Your task to perform on an android device: turn off notifications settings in the gmail app Image 0: 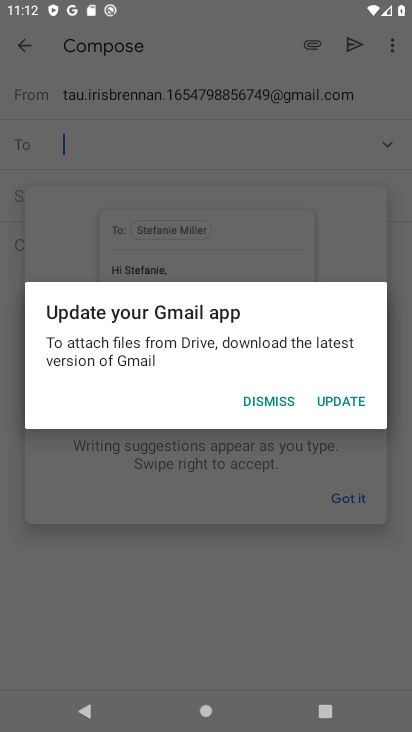
Step 0: press home button
Your task to perform on an android device: turn off notifications settings in the gmail app Image 1: 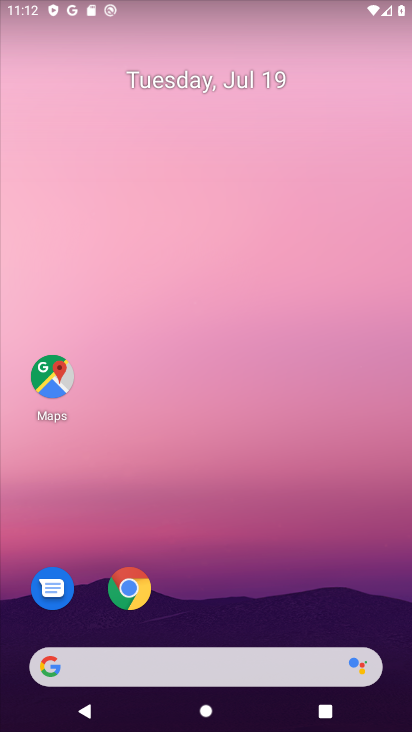
Step 1: drag from (264, 660) to (286, 121)
Your task to perform on an android device: turn off notifications settings in the gmail app Image 2: 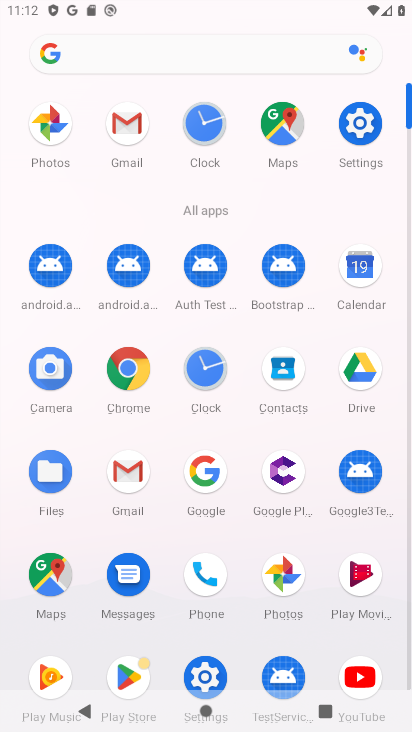
Step 2: click (131, 470)
Your task to perform on an android device: turn off notifications settings in the gmail app Image 3: 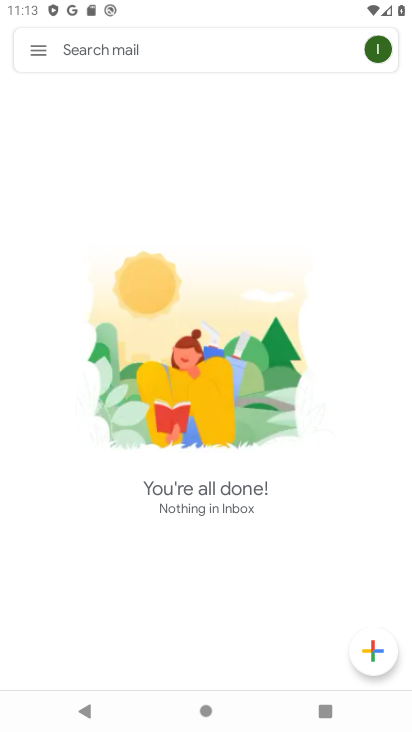
Step 3: click (40, 49)
Your task to perform on an android device: turn off notifications settings in the gmail app Image 4: 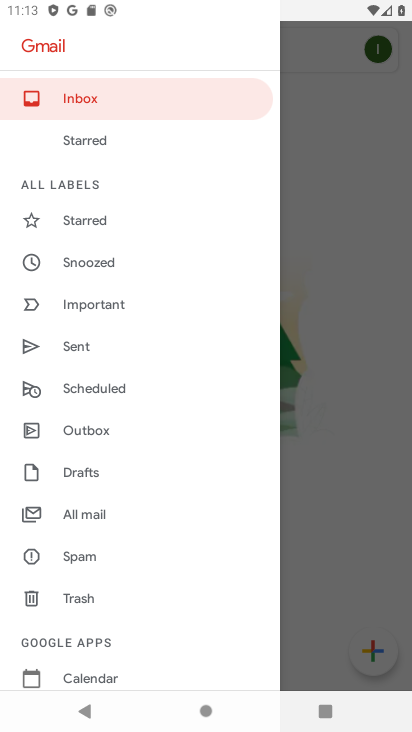
Step 4: drag from (119, 655) to (121, 464)
Your task to perform on an android device: turn off notifications settings in the gmail app Image 5: 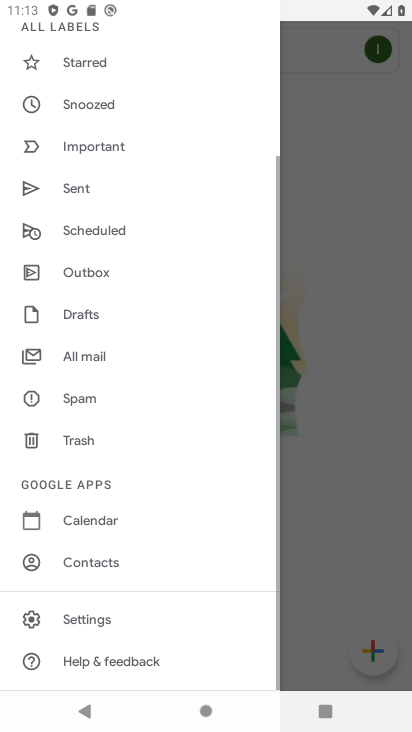
Step 5: click (91, 618)
Your task to perform on an android device: turn off notifications settings in the gmail app Image 6: 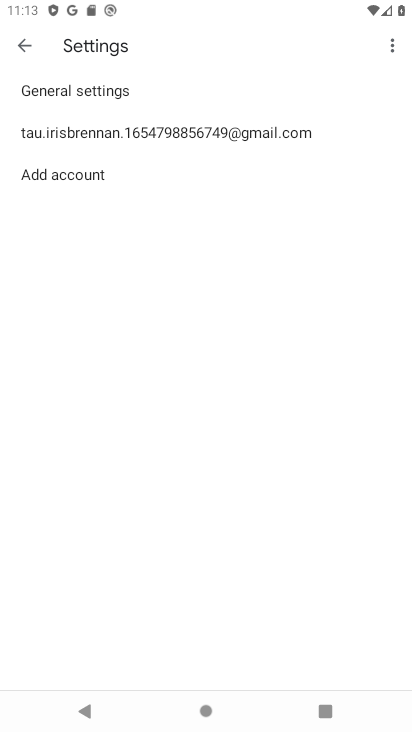
Step 6: click (152, 127)
Your task to perform on an android device: turn off notifications settings in the gmail app Image 7: 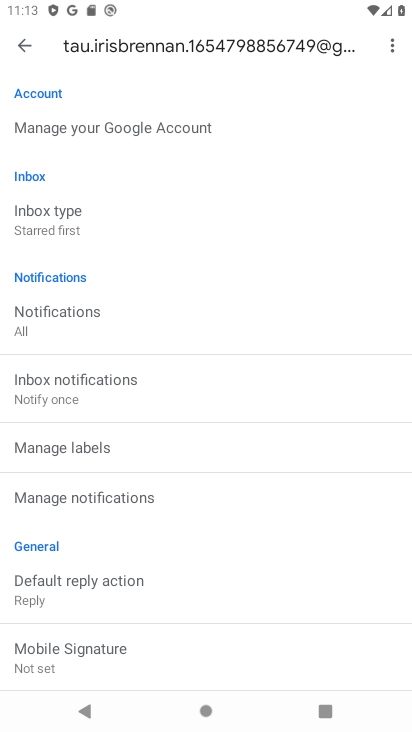
Step 7: drag from (158, 661) to (158, 402)
Your task to perform on an android device: turn off notifications settings in the gmail app Image 8: 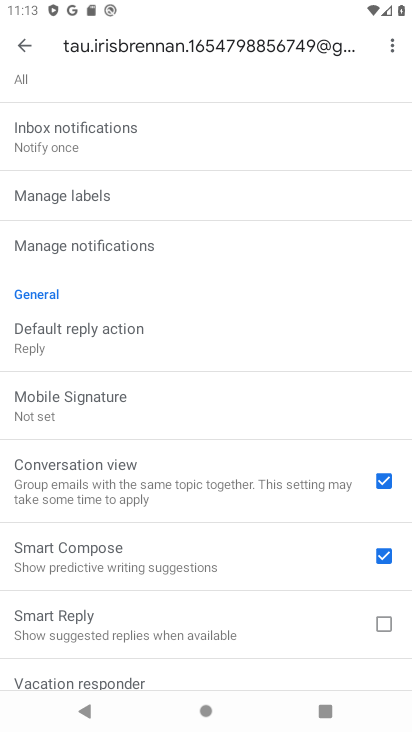
Step 8: drag from (176, 626) to (180, 589)
Your task to perform on an android device: turn off notifications settings in the gmail app Image 9: 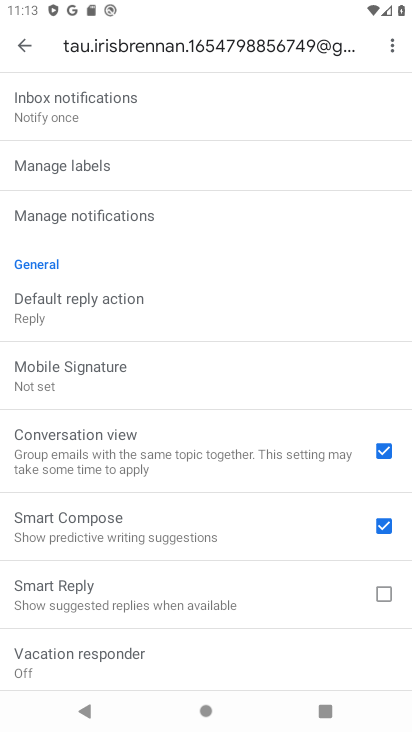
Step 9: click (149, 114)
Your task to perform on an android device: turn off notifications settings in the gmail app Image 10: 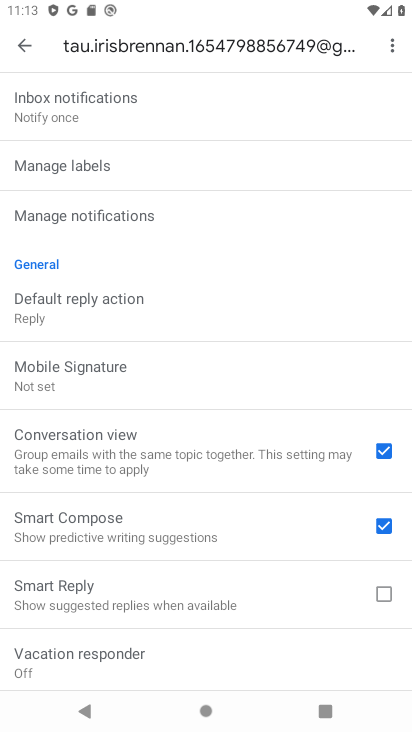
Step 10: drag from (159, 219) to (185, 466)
Your task to perform on an android device: turn off notifications settings in the gmail app Image 11: 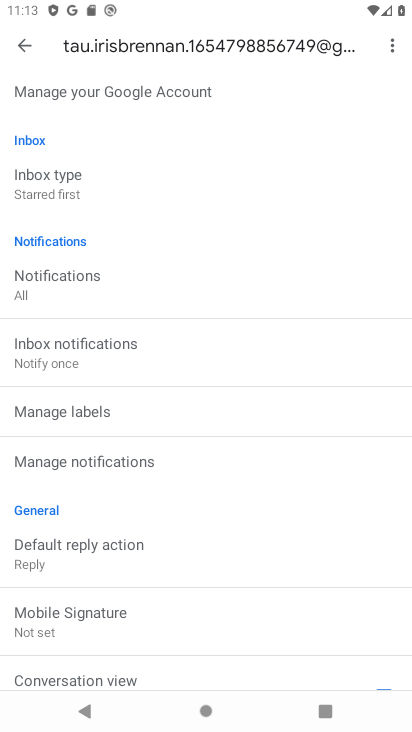
Step 11: click (65, 280)
Your task to perform on an android device: turn off notifications settings in the gmail app Image 12: 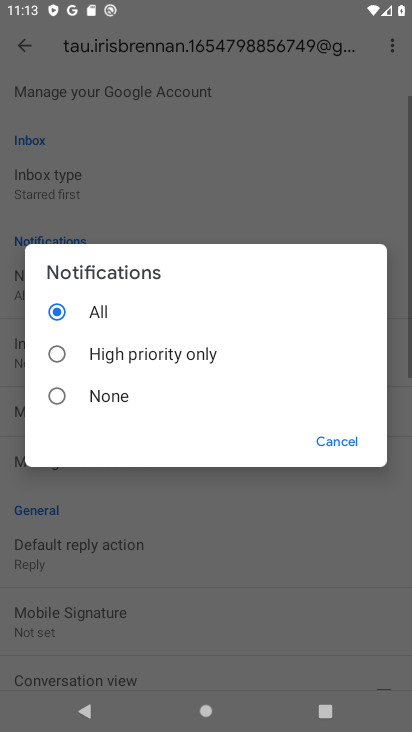
Step 12: click (59, 389)
Your task to perform on an android device: turn off notifications settings in the gmail app Image 13: 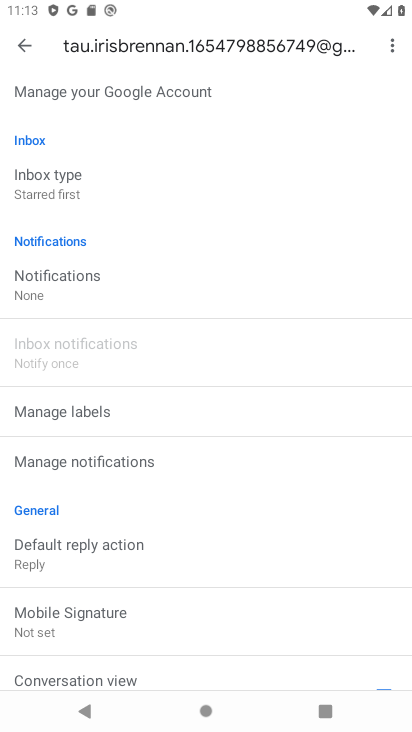
Step 13: task complete